Your task to perform on an android device: empty trash in the gmail app Image 0: 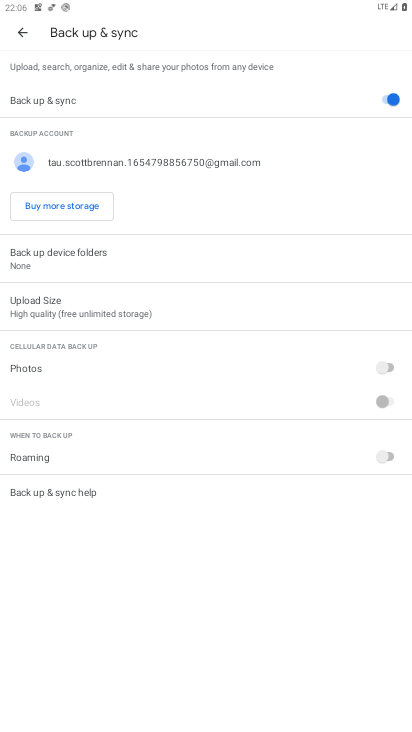
Step 0: press home button
Your task to perform on an android device: empty trash in the gmail app Image 1: 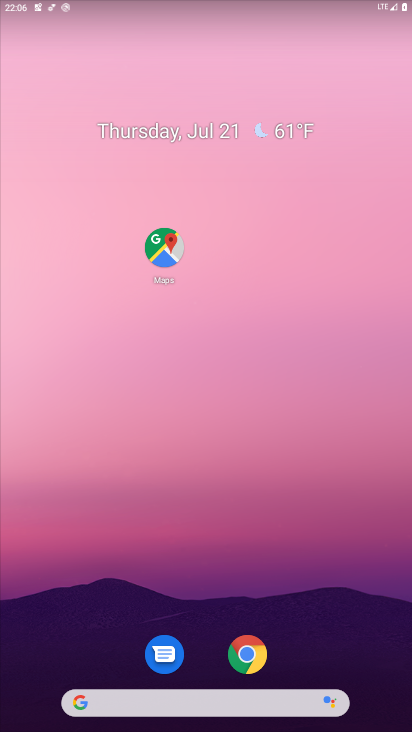
Step 1: drag from (27, 711) to (158, 225)
Your task to perform on an android device: empty trash in the gmail app Image 2: 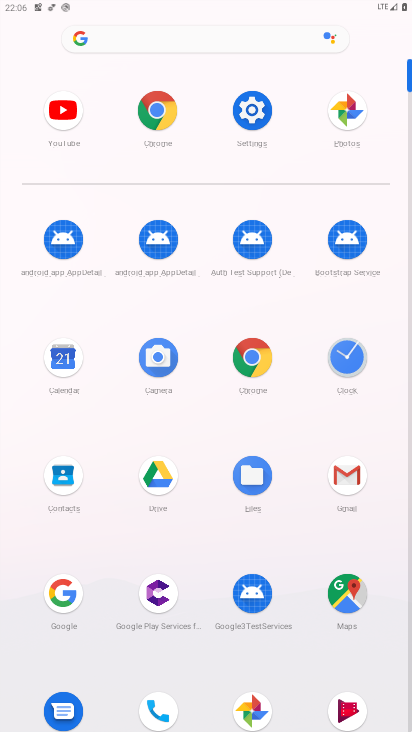
Step 2: click (357, 481)
Your task to perform on an android device: empty trash in the gmail app Image 3: 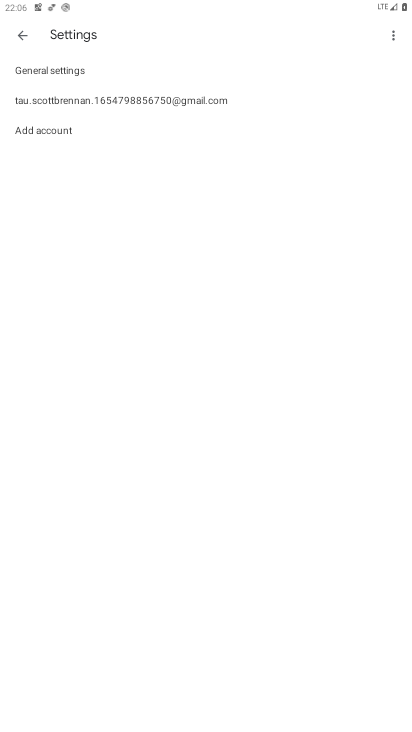
Step 3: click (17, 38)
Your task to perform on an android device: empty trash in the gmail app Image 4: 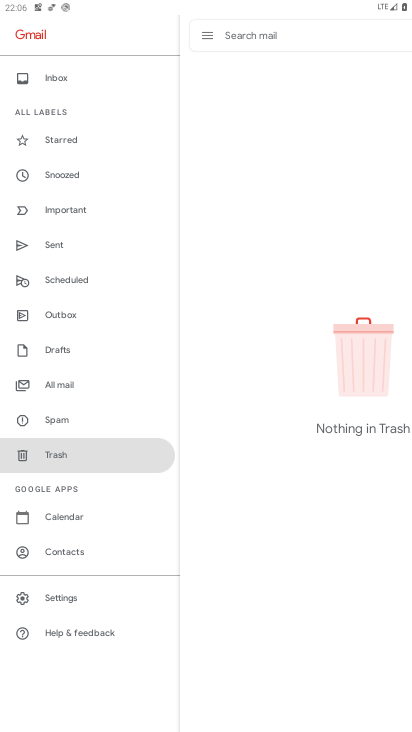
Step 4: click (62, 457)
Your task to perform on an android device: empty trash in the gmail app Image 5: 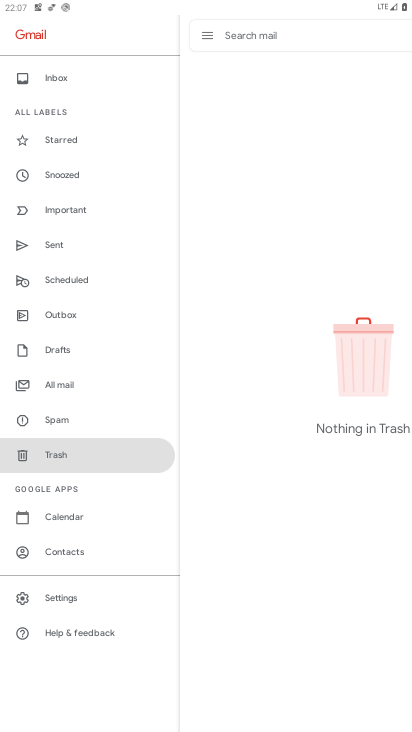
Step 5: task complete